Your task to perform on an android device: Search for sushi restaurants on Maps Image 0: 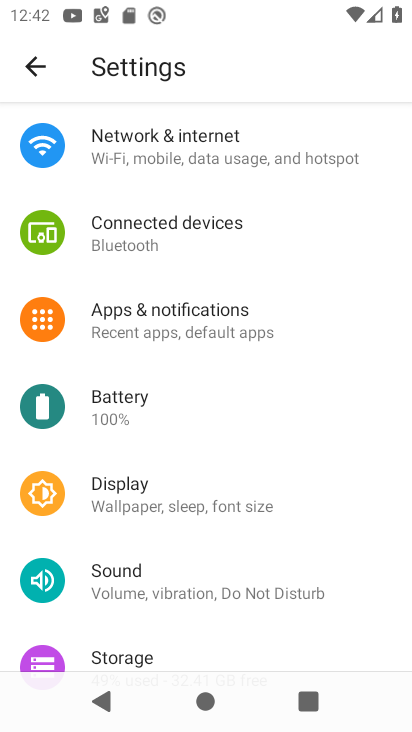
Step 0: press home button
Your task to perform on an android device: Search for sushi restaurants on Maps Image 1: 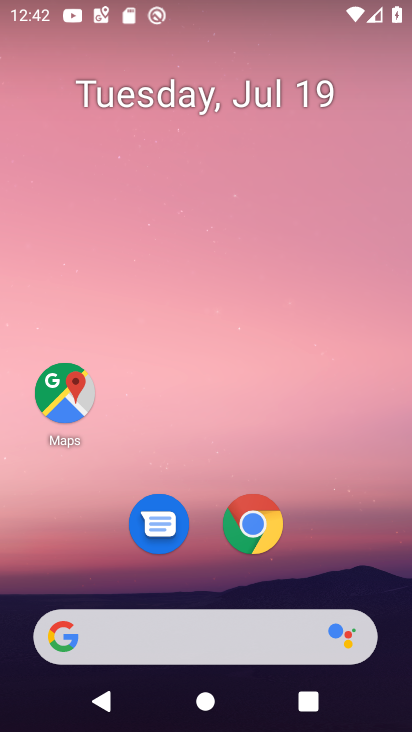
Step 1: click (67, 391)
Your task to perform on an android device: Search for sushi restaurants on Maps Image 2: 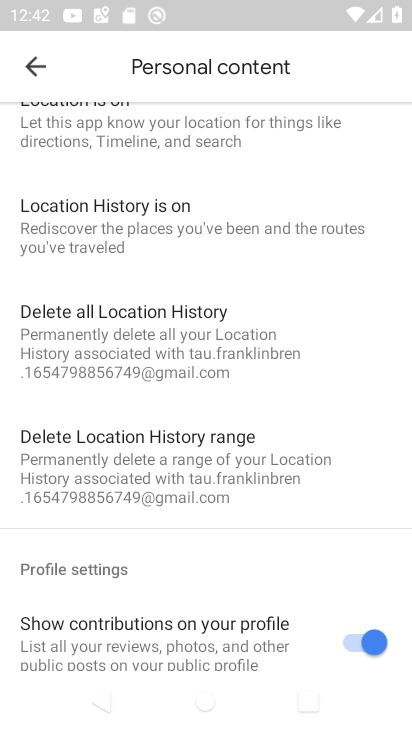
Step 2: click (45, 64)
Your task to perform on an android device: Search for sushi restaurants on Maps Image 3: 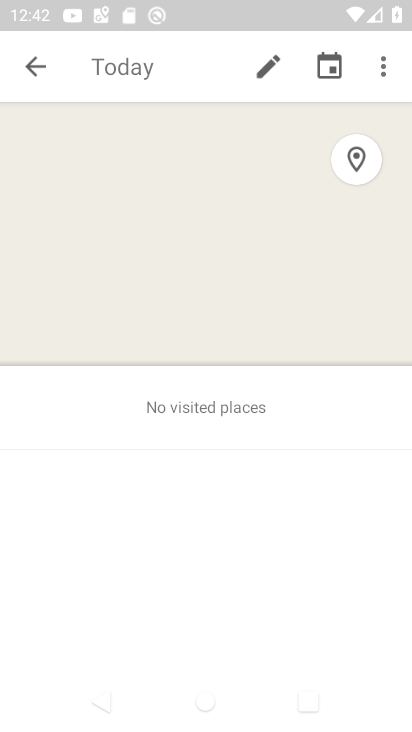
Step 3: click (45, 65)
Your task to perform on an android device: Search for sushi restaurants on Maps Image 4: 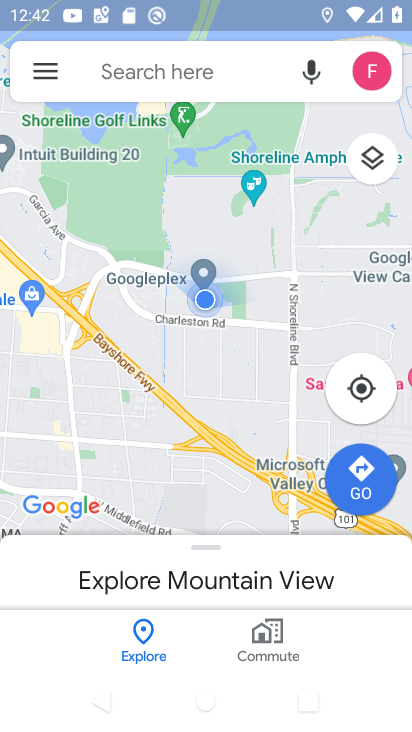
Step 4: click (132, 70)
Your task to perform on an android device: Search for sushi restaurants on Maps Image 5: 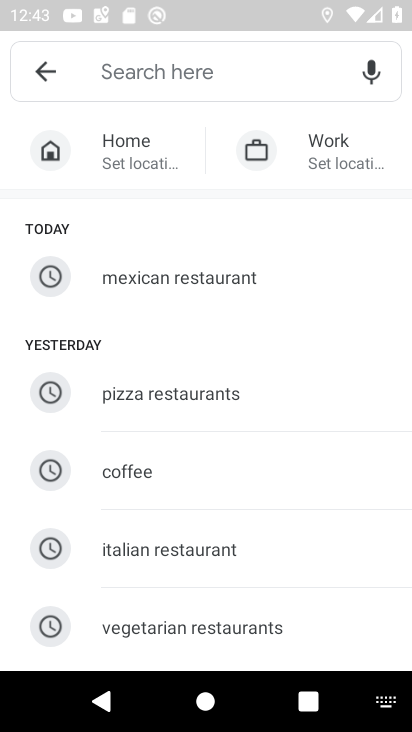
Step 5: drag from (240, 480) to (209, 245)
Your task to perform on an android device: Search for sushi restaurants on Maps Image 6: 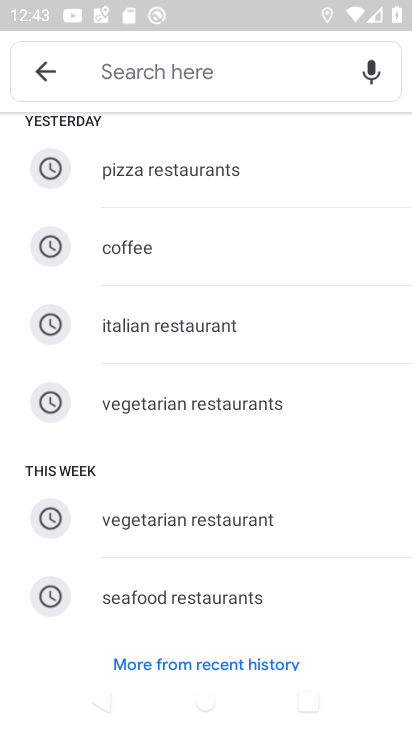
Step 6: click (220, 67)
Your task to perform on an android device: Search for sushi restaurants on Maps Image 7: 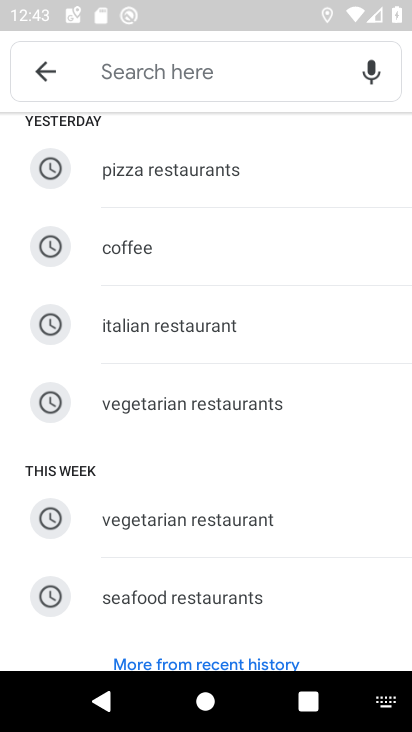
Step 7: type "sushi restaurents"
Your task to perform on an android device: Search for sushi restaurants on Maps Image 8: 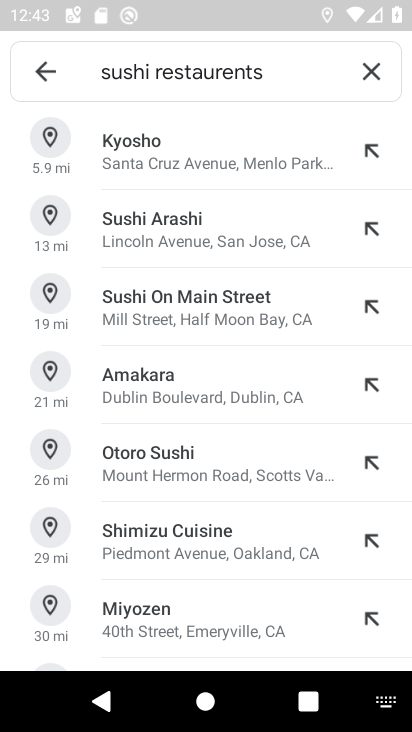
Step 8: drag from (198, 455) to (219, 166)
Your task to perform on an android device: Search for sushi restaurants on Maps Image 9: 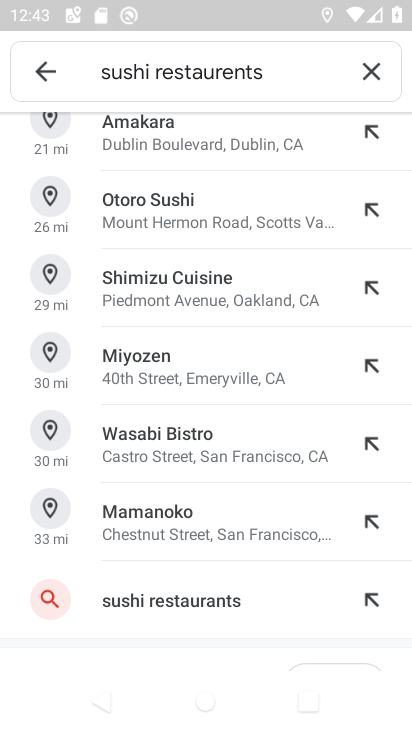
Step 9: click (201, 596)
Your task to perform on an android device: Search for sushi restaurants on Maps Image 10: 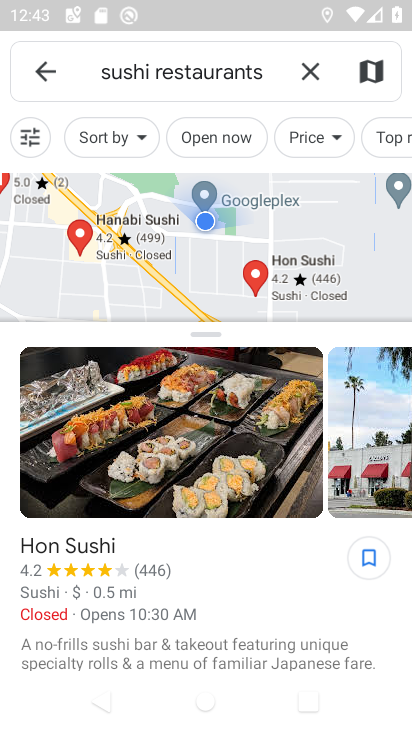
Step 10: task complete